Your task to perform on an android device: Google the capital of Canada Image 0: 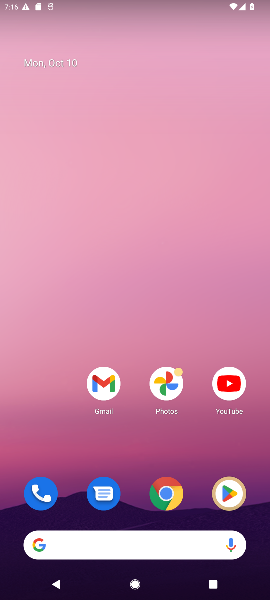
Step 0: drag from (118, 440) to (117, 154)
Your task to perform on an android device: Google the capital of Canada Image 1: 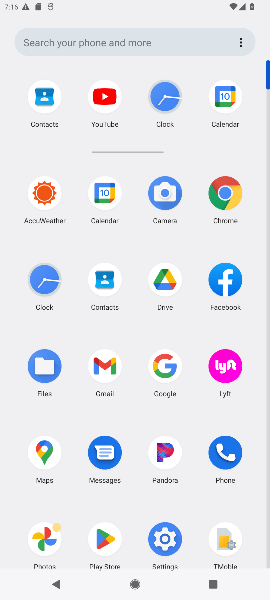
Step 1: click (162, 368)
Your task to perform on an android device: Google the capital of Canada Image 2: 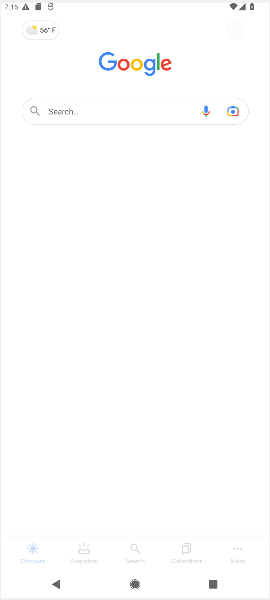
Step 2: click (162, 368)
Your task to perform on an android device: Google the capital of Canada Image 3: 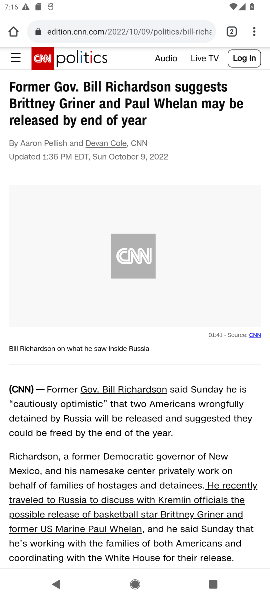
Step 3: click (103, 23)
Your task to perform on an android device: Google the capital of Canada Image 4: 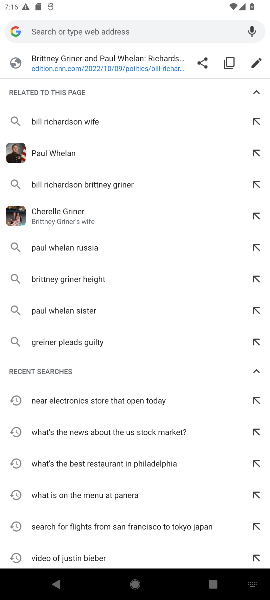
Step 4: type "the capital of Canada"
Your task to perform on an android device: Google the capital of Canada Image 5: 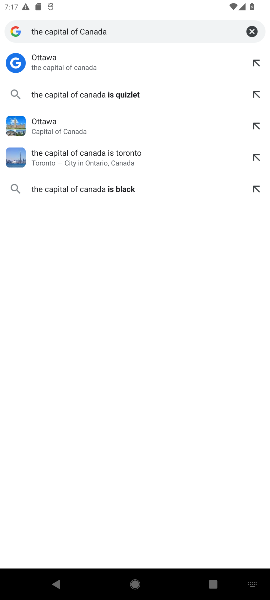
Step 5: click (57, 67)
Your task to perform on an android device: Google the capital of Canada Image 6: 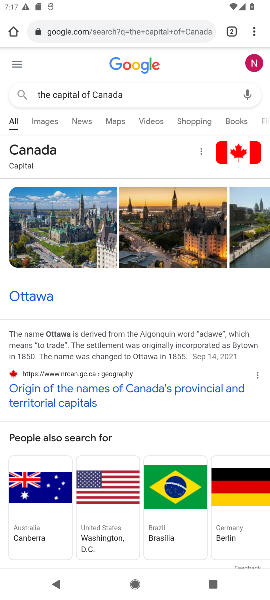
Step 6: task complete